Your task to perform on an android device: move an email to a new category in the gmail app Image 0: 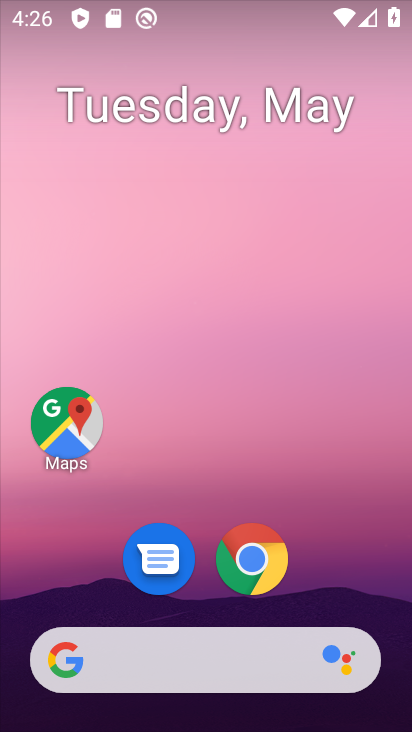
Step 0: drag from (314, 468) to (271, 5)
Your task to perform on an android device: move an email to a new category in the gmail app Image 1: 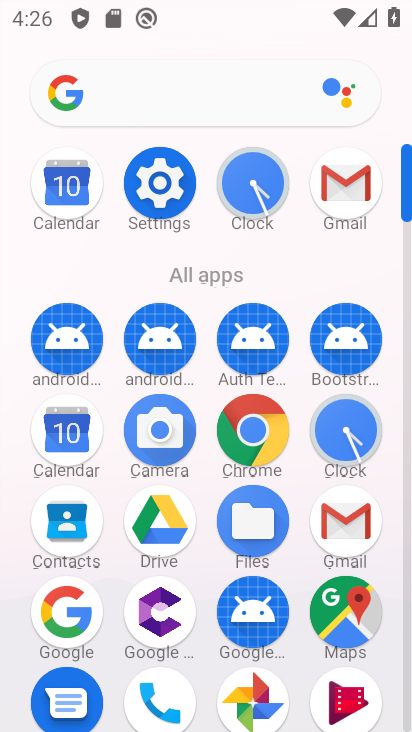
Step 1: click (340, 533)
Your task to perform on an android device: move an email to a new category in the gmail app Image 2: 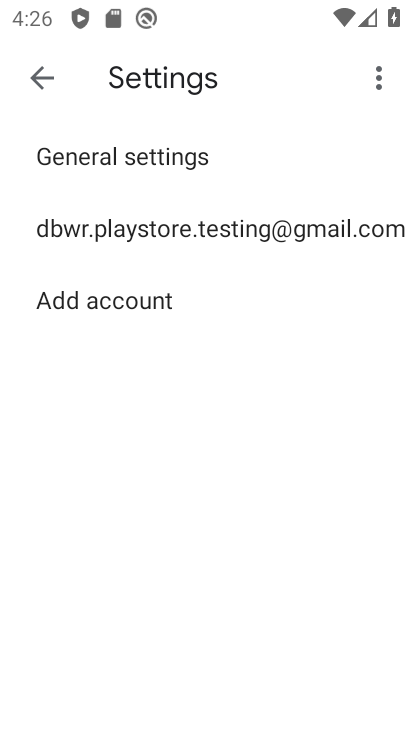
Step 2: click (114, 236)
Your task to perform on an android device: move an email to a new category in the gmail app Image 3: 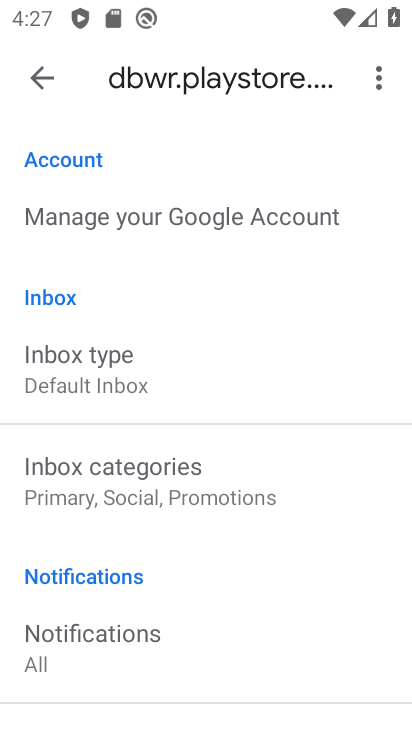
Step 3: click (48, 64)
Your task to perform on an android device: move an email to a new category in the gmail app Image 4: 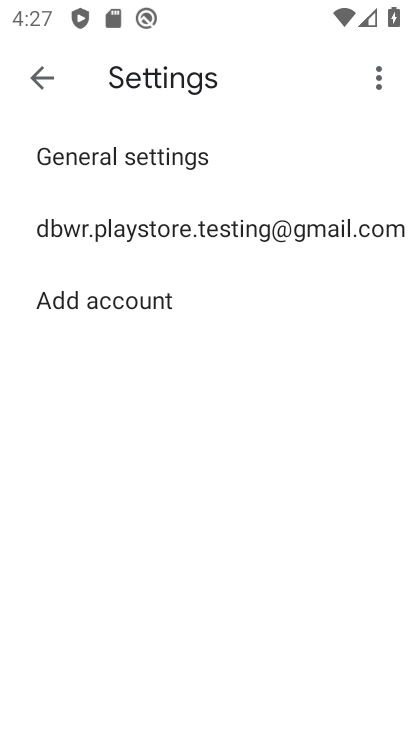
Step 4: click (48, 64)
Your task to perform on an android device: move an email to a new category in the gmail app Image 5: 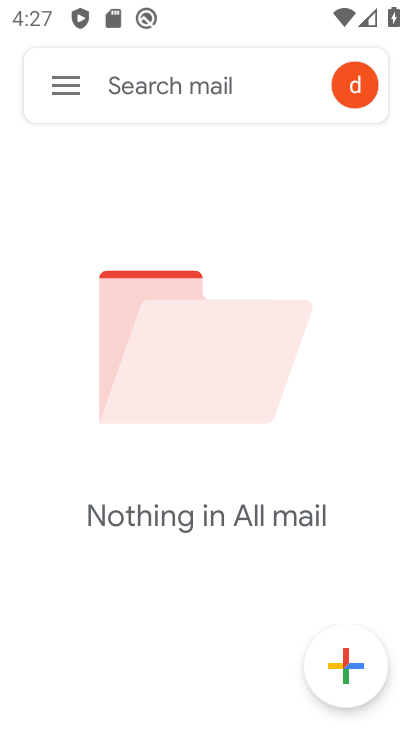
Step 5: task complete